Your task to perform on an android device: Add jbl charge 4 to the cart on ebay.com Image 0: 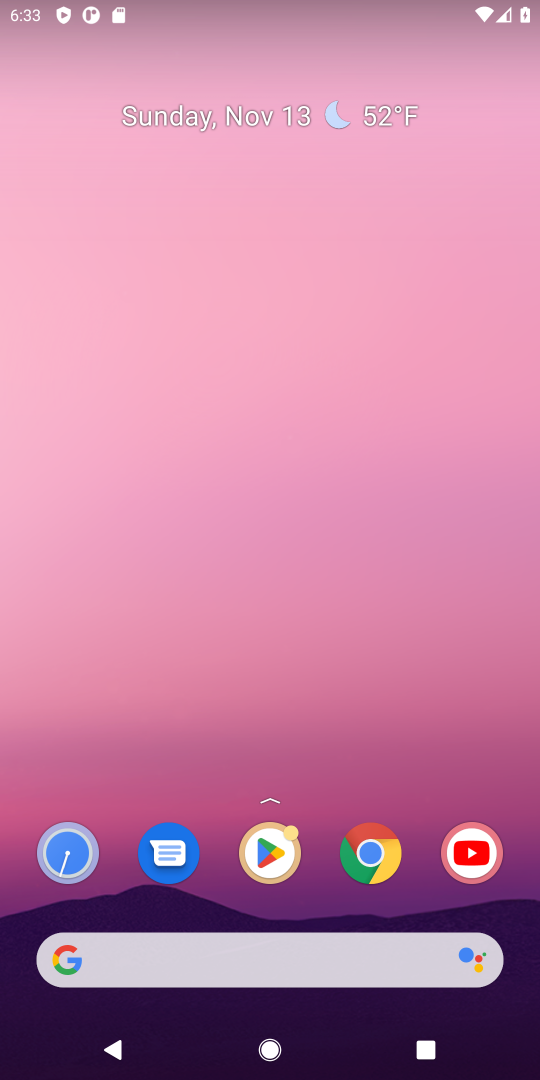
Step 0: press home button
Your task to perform on an android device: Add jbl charge 4 to the cart on ebay.com Image 1: 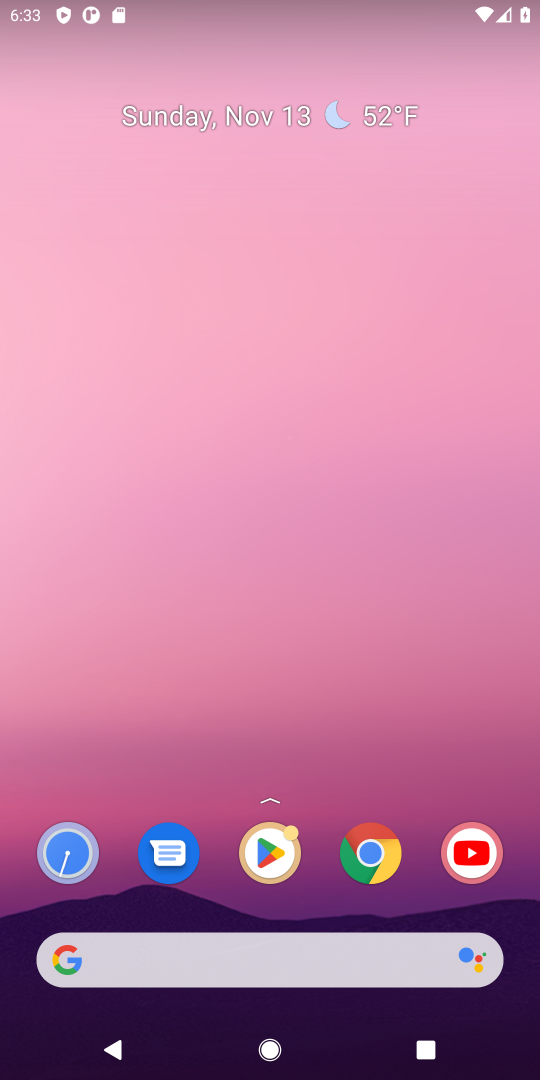
Step 1: click (97, 962)
Your task to perform on an android device: Add jbl charge 4 to the cart on ebay.com Image 2: 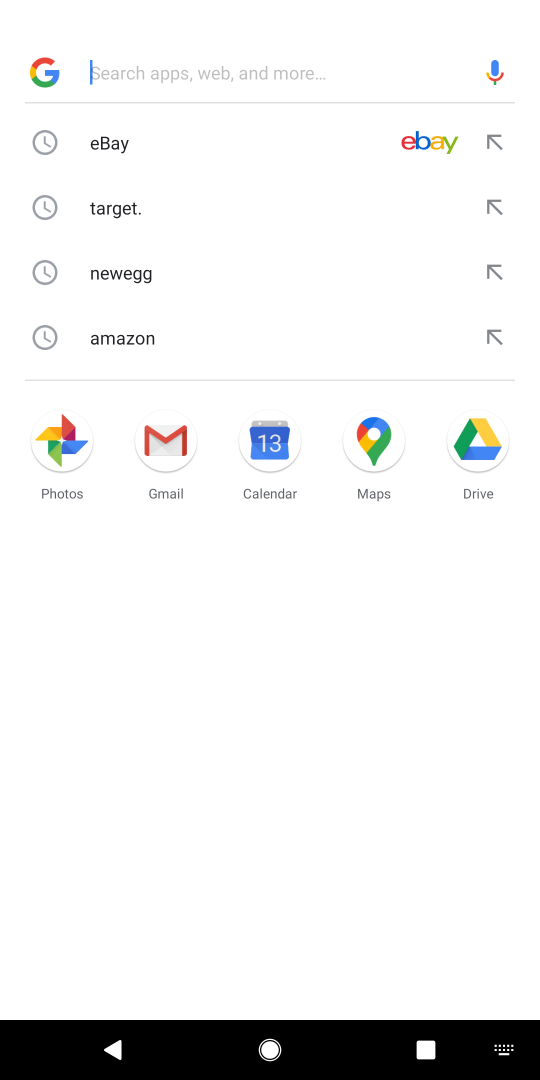
Step 2: type "ebay.com"
Your task to perform on an android device: Add jbl charge 4 to the cart on ebay.com Image 3: 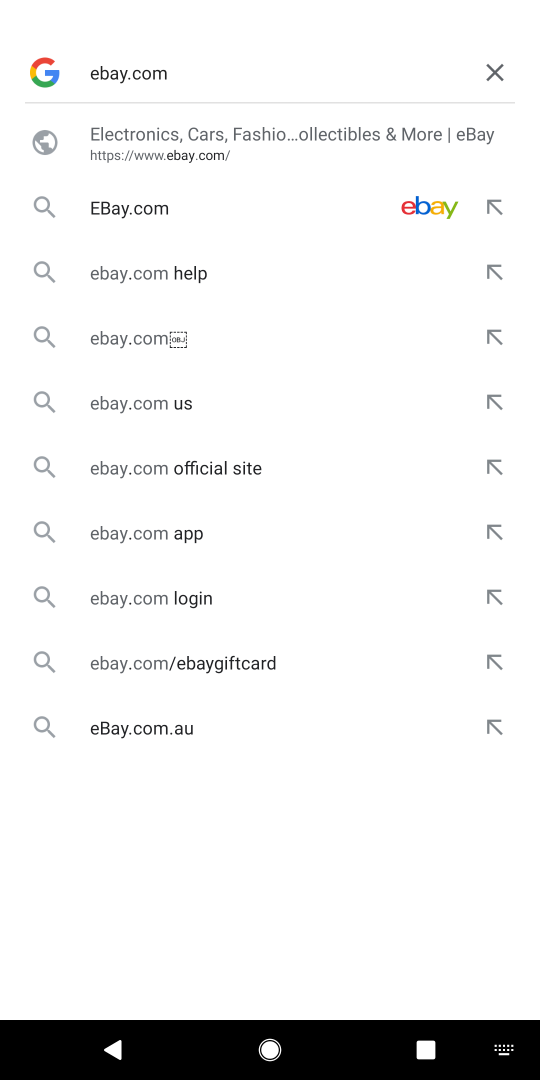
Step 3: press enter
Your task to perform on an android device: Add jbl charge 4 to the cart on ebay.com Image 4: 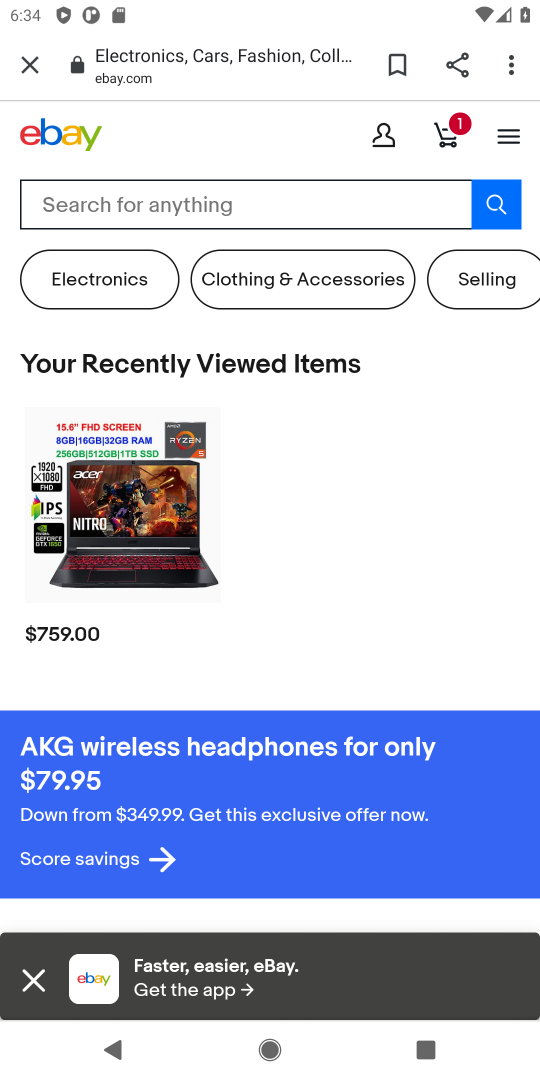
Step 4: click (56, 208)
Your task to perform on an android device: Add jbl charge 4 to the cart on ebay.com Image 5: 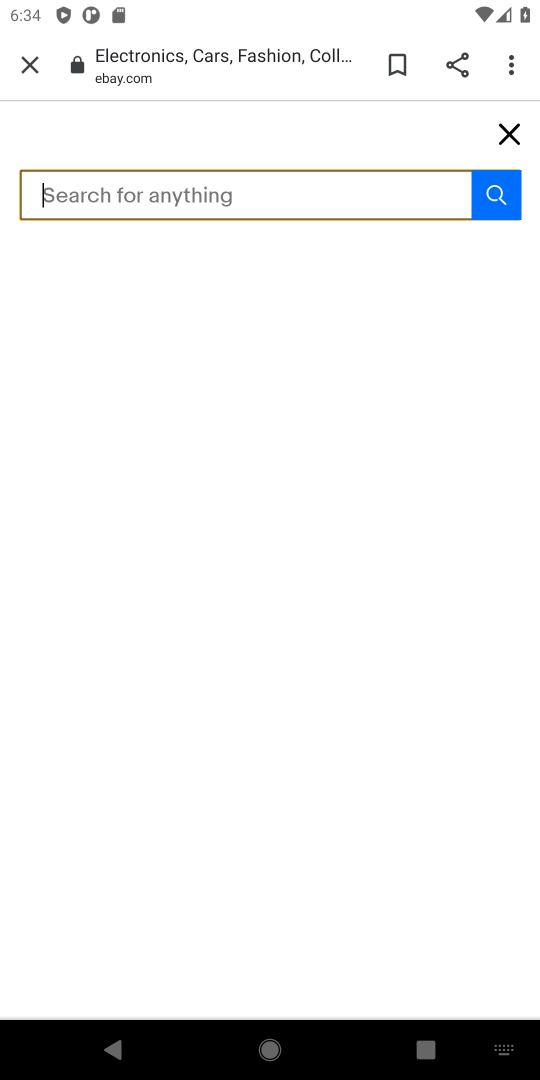
Step 5: type "jbl charge 4"
Your task to perform on an android device: Add jbl charge 4 to the cart on ebay.com Image 6: 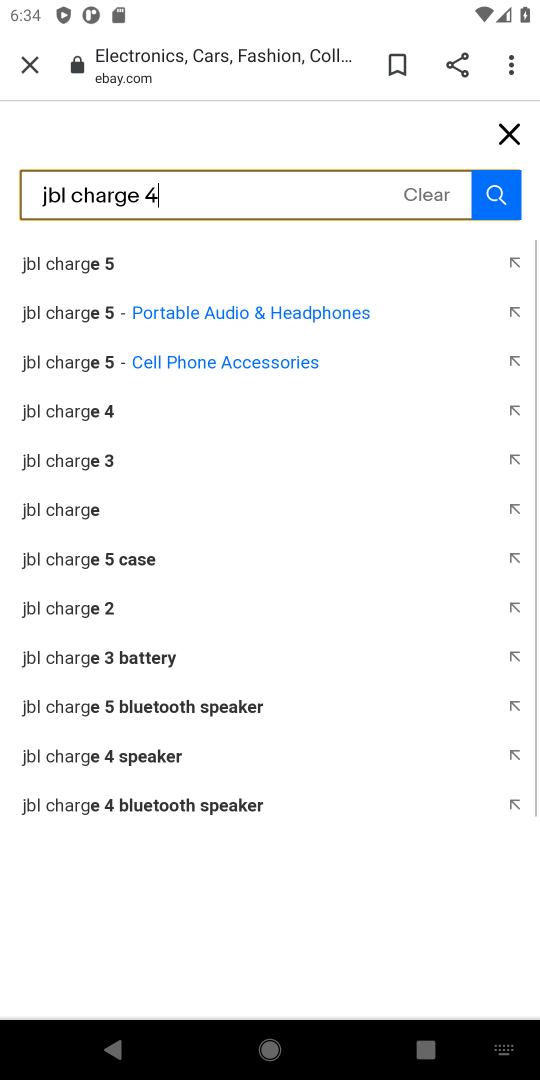
Step 6: press enter
Your task to perform on an android device: Add jbl charge 4 to the cart on ebay.com Image 7: 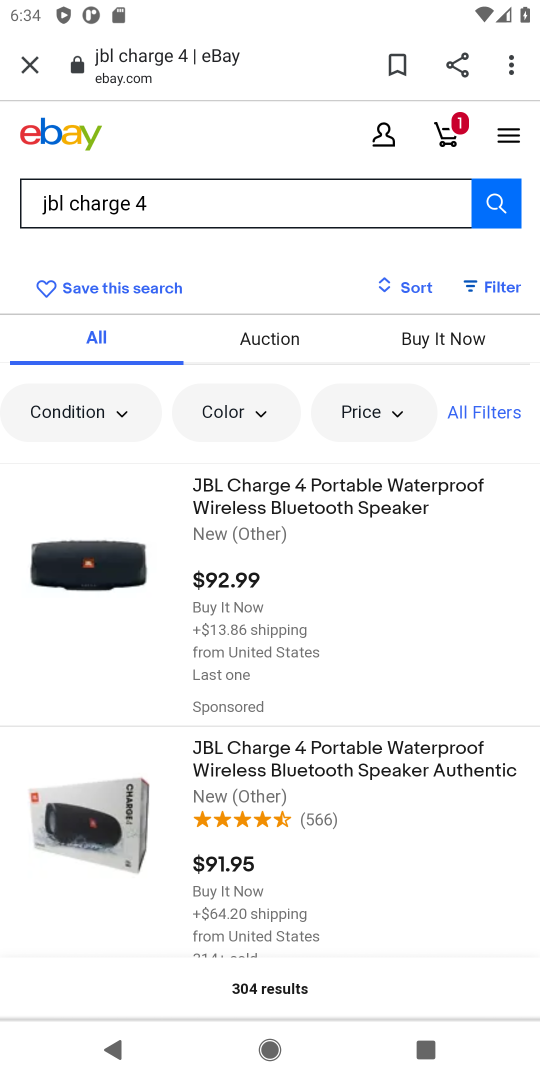
Step 7: click (257, 494)
Your task to perform on an android device: Add jbl charge 4 to the cart on ebay.com Image 8: 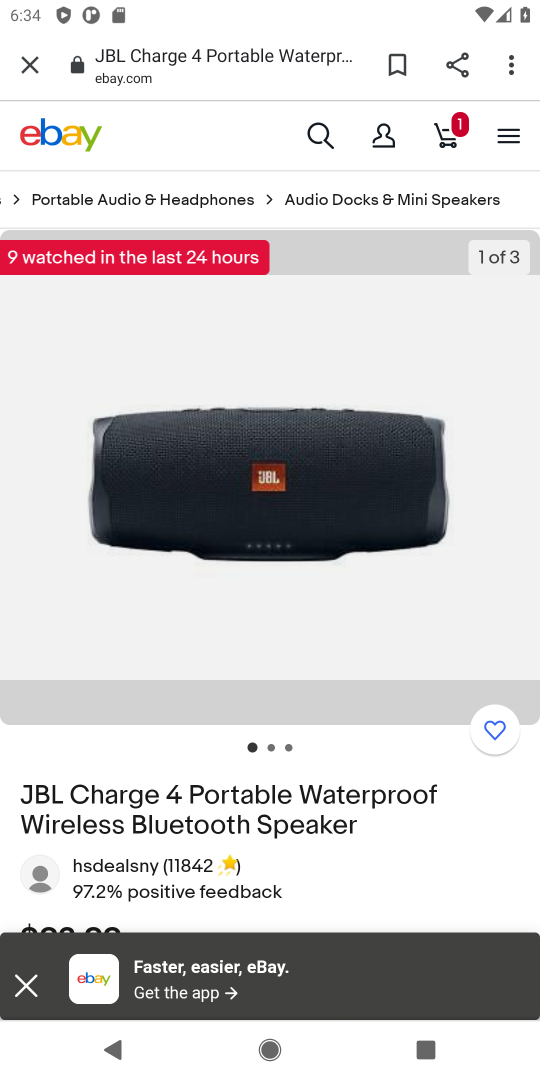
Step 8: drag from (307, 889) to (314, 503)
Your task to perform on an android device: Add jbl charge 4 to the cart on ebay.com Image 9: 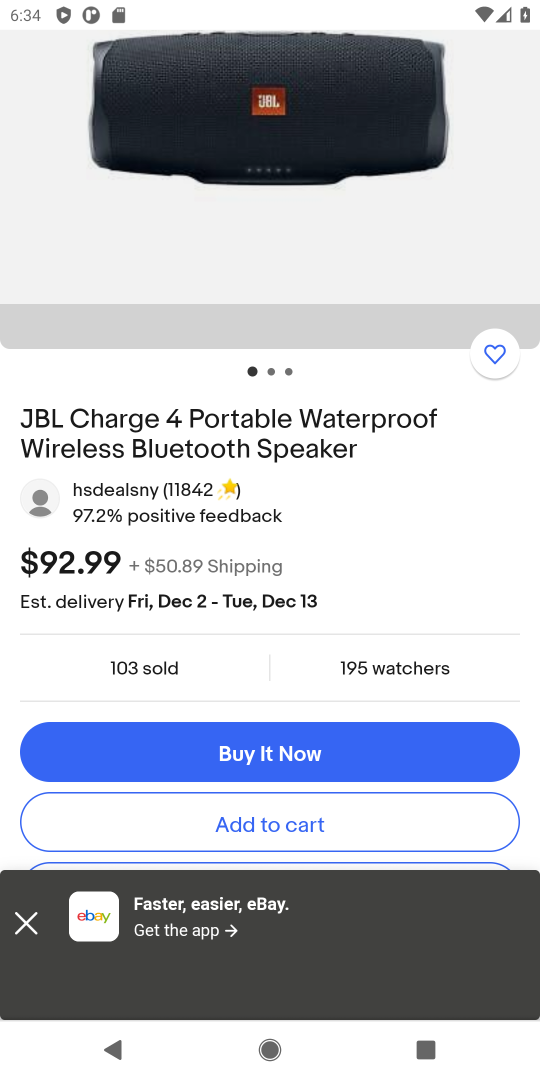
Step 9: drag from (379, 783) to (379, 355)
Your task to perform on an android device: Add jbl charge 4 to the cart on ebay.com Image 10: 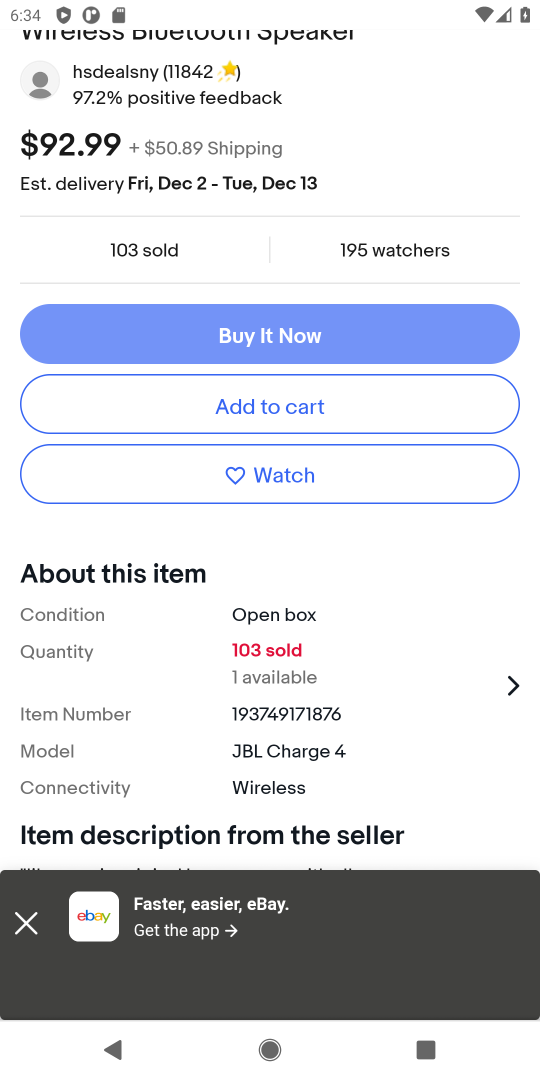
Step 10: click (238, 401)
Your task to perform on an android device: Add jbl charge 4 to the cart on ebay.com Image 11: 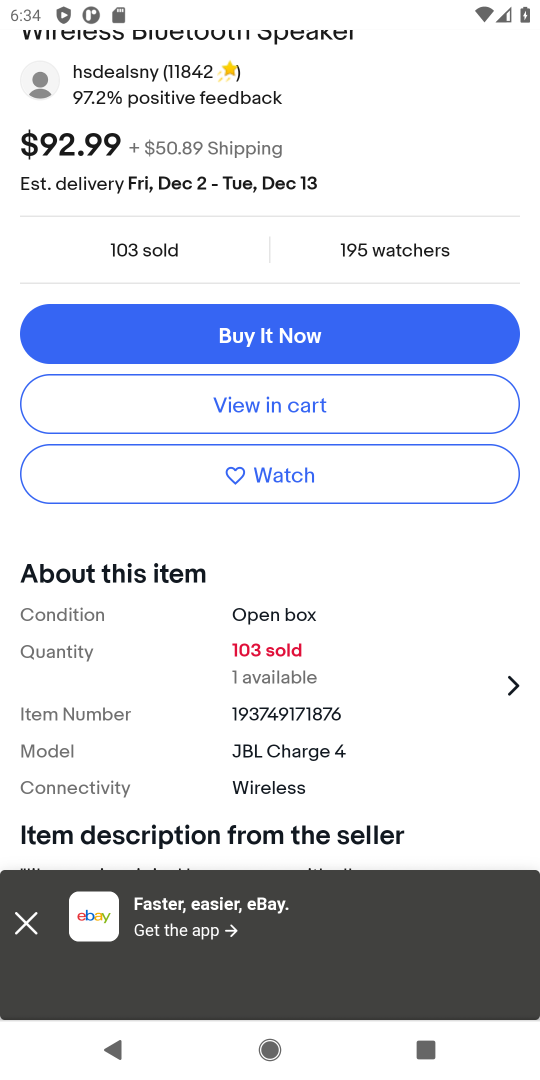
Step 11: task complete